Your task to perform on an android device: Check the news Image 0: 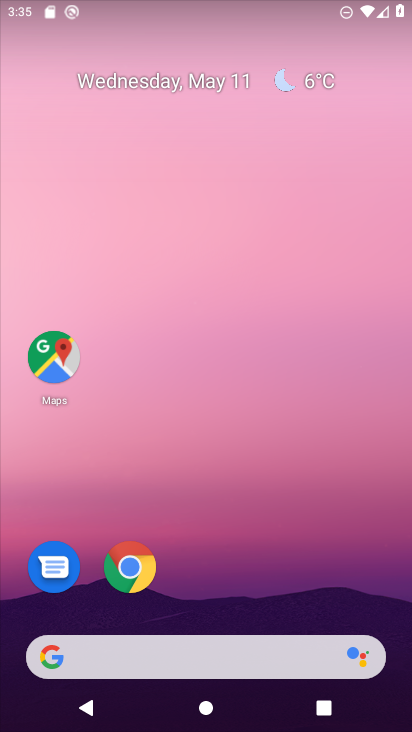
Step 0: drag from (11, 429) to (350, 527)
Your task to perform on an android device: Check the news Image 1: 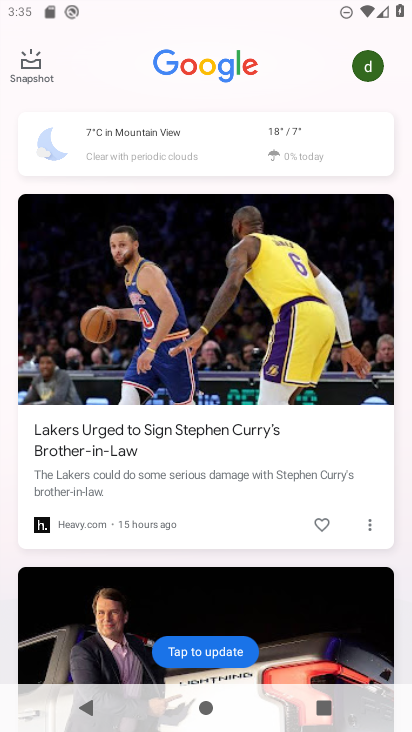
Step 1: task complete